Your task to perform on an android device: Show me productivity apps on the Play Store Image 0: 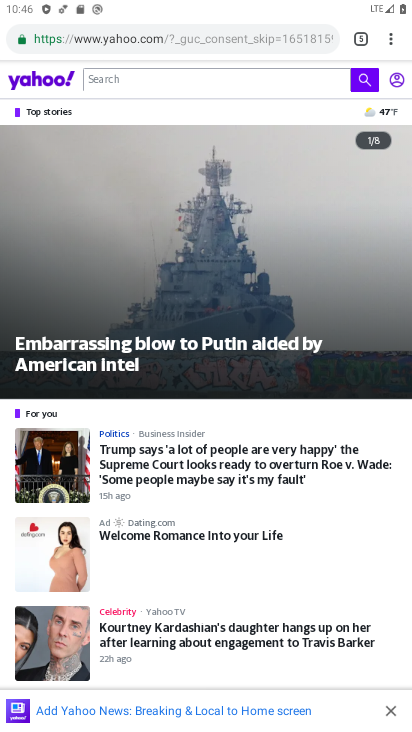
Step 0: press home button
Your task to perform on an android device: Show me productivity apps on the Play Store Image 1: 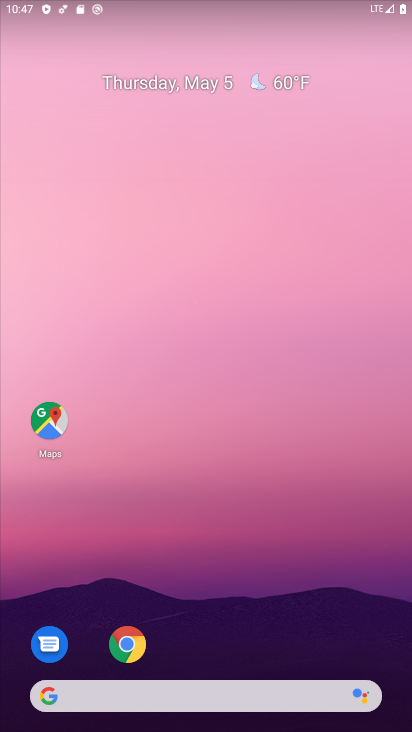
Step 1: drag from (365, 638) to (322, 196)
Your task to perform on an android device: Show me productivity apps on the Play Store Image 2: 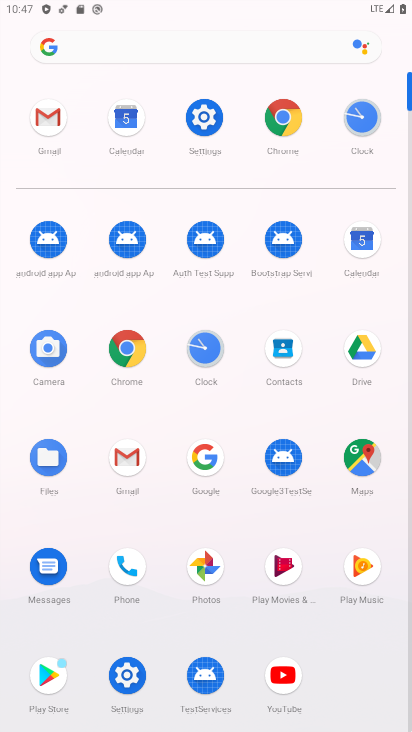
Step 2: click (45, 673)
Your task to perform on an android device: Show me productivity apps on the Play Store Image 3: 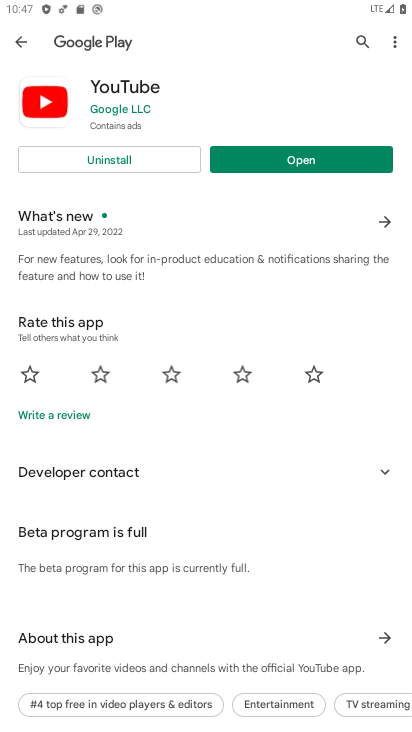
Step 3: click (26, 37)
Your task to perform on an android device: Show me productivity apps on the Play Store Image 4: 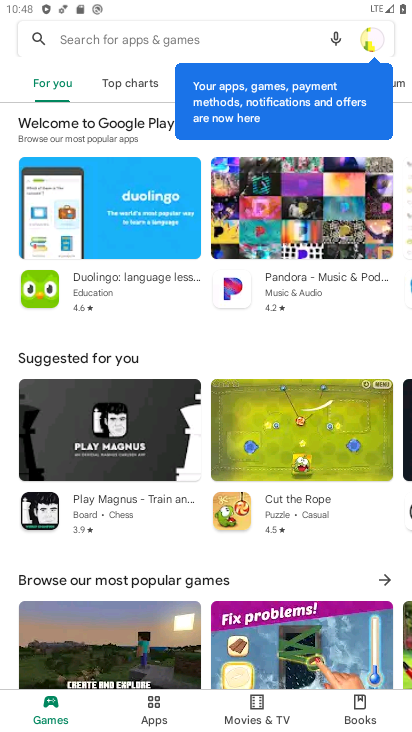
Step 4: click (146, 709)
Your task to perform on an android device: Show me productivity apps on the Play Store Image 5: 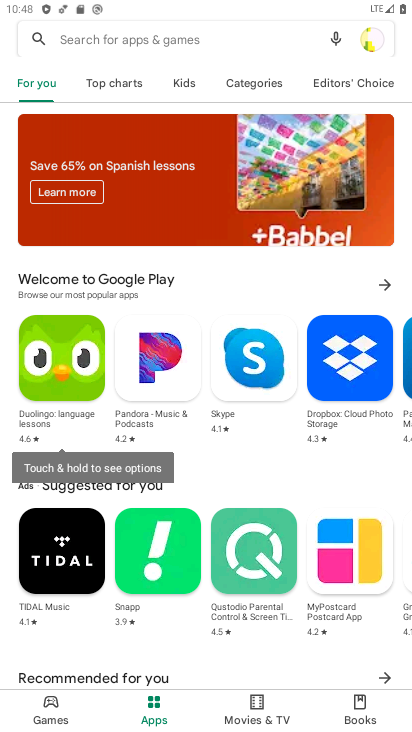
Step 5: click (245, 80)
Your task to perform on an android device: Show me productivity apps on the Play Store Image 6: 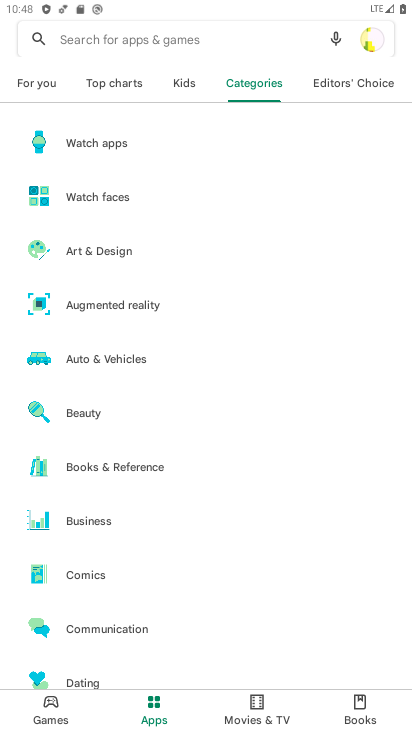
Step 6: drag from (176, 521) to (193, 371)
Your task to perform on an android device: Show me productivity apps on the Play Store Image 7: 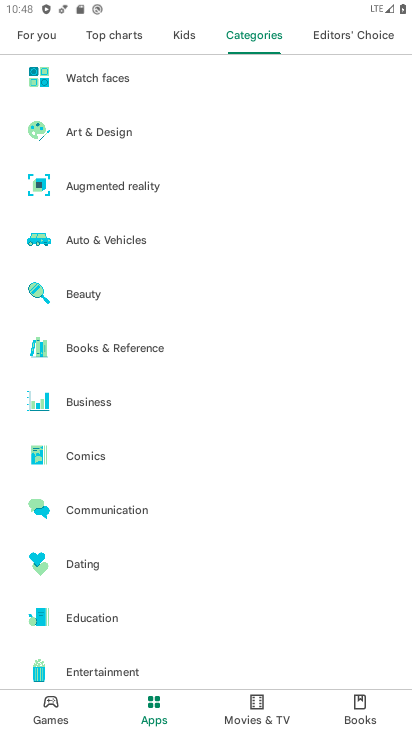
Step 7: drag from (112, 635) to (192, 275)
Your task to perform on an android device: Show me productivity apps on the Play Store Image 8: 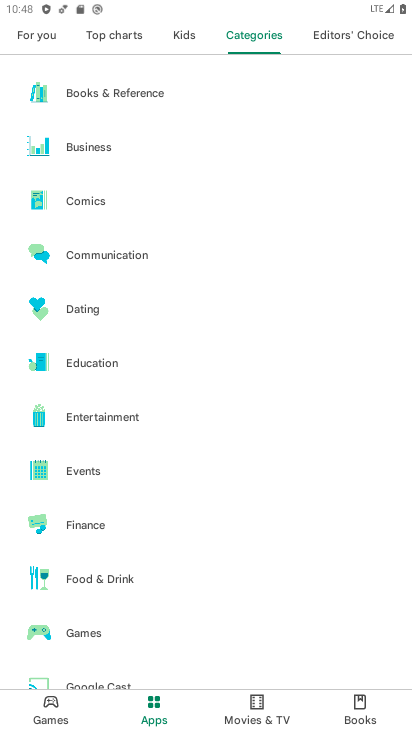
Step 8: drag from (134, 601) to (163, 313)
Your task to perform on an android device: Show me productivity apps on the Play Store Image 9: 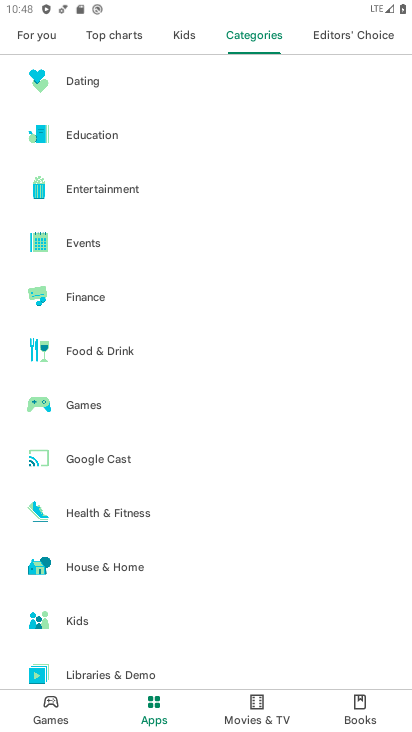
Step 9: drag from (145, 610) to (184, 313)
Your task to perform on an android device: Show me productivity apps on the Play Store Image 10: 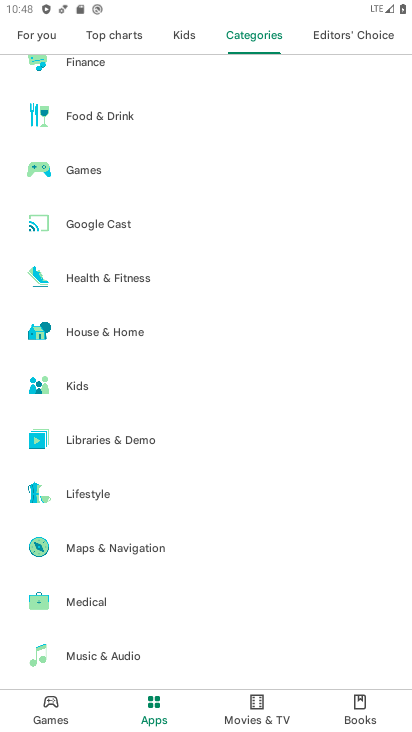
Step 10: drag from (151, 632) to (206, 334)
Your task to perform on an android device: Show me productivity apps on the Play Store Image 11: 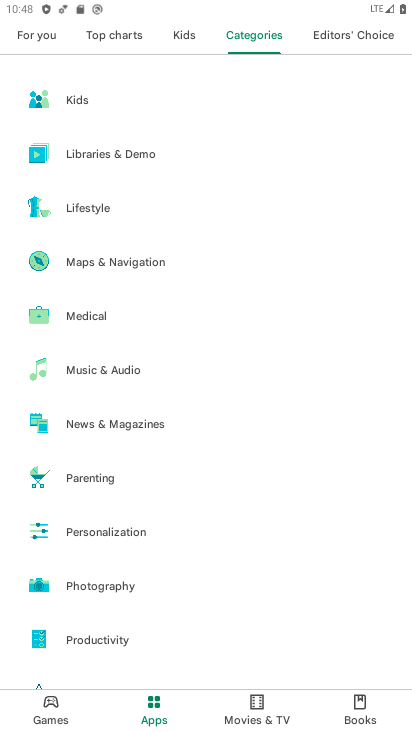
Step 11: click (116, 645)
Your task to perform on an android device: Show me productivity apps on the Play Store Image 12: 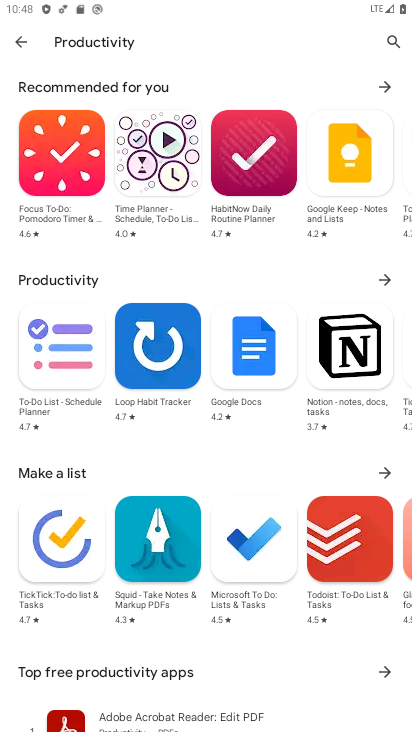
Step 12: task complete